Your task to perform on an android device: Open settings Image 0: 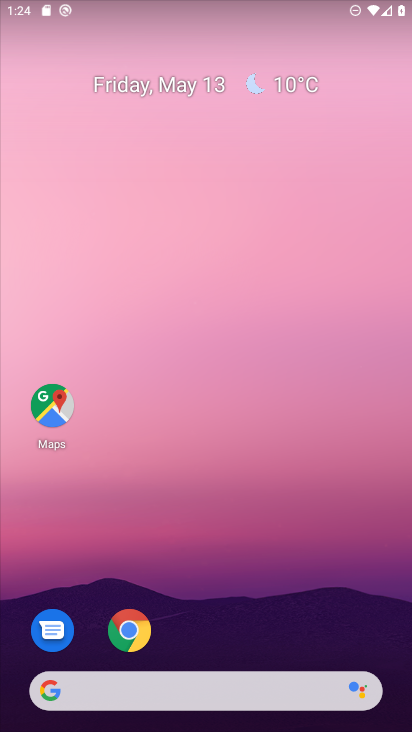
Step 0: drag from (167, 657) to (171, 217)
Your task to perform on an android device: Open settings Image 1: 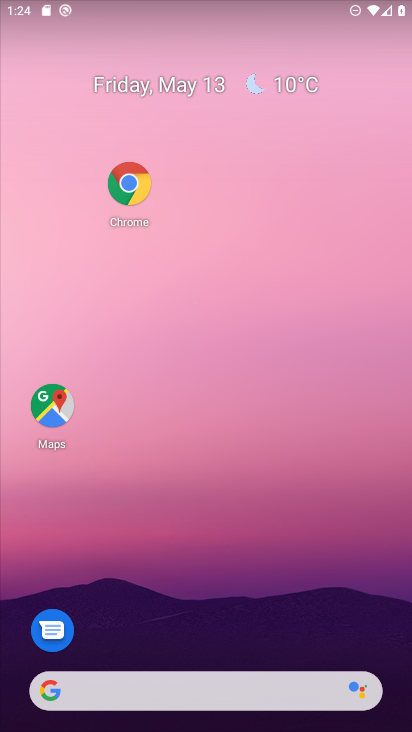
Step 1: drag from (208, 683) to (139, 30)
Your task to perform on an android device: Open settings Image 2: 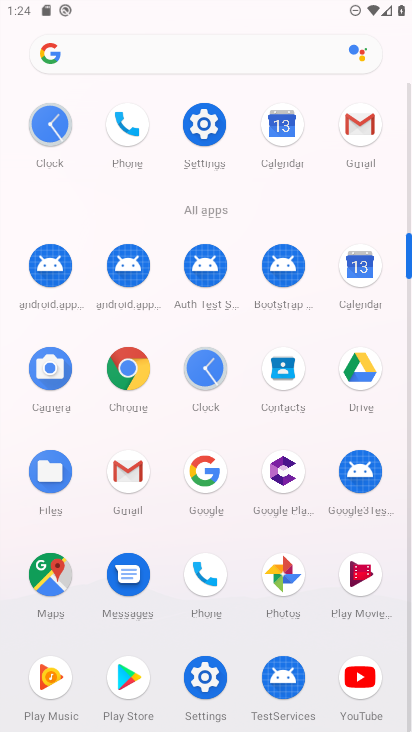
Step 2: click (211, 119)
Your task to perform on an android device: Open settings Image 3: 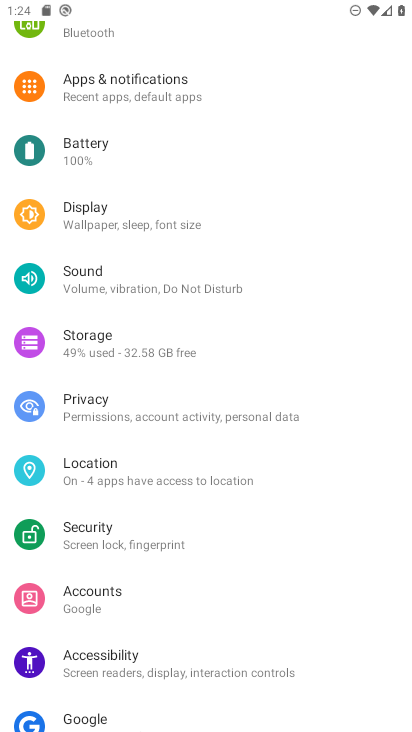
Step 3: task complete